Your task to perform on an android device: make emails show in primary in the gmail app Image 0: 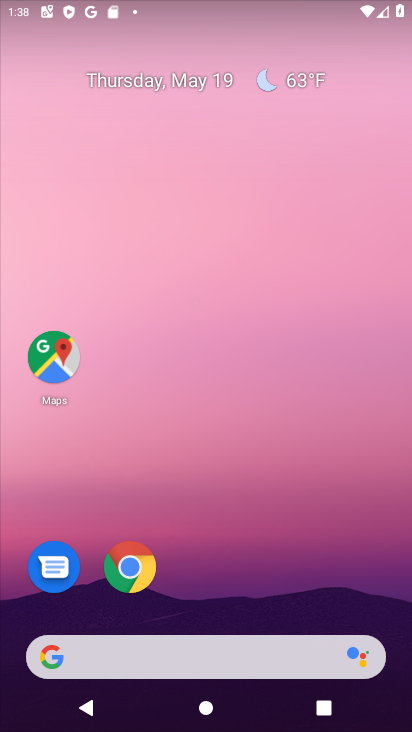
Step 0: drag from (275, 531) to (181, 132)
Your task to perform on an android device: make emails show in primary in the gmail app Image 1: 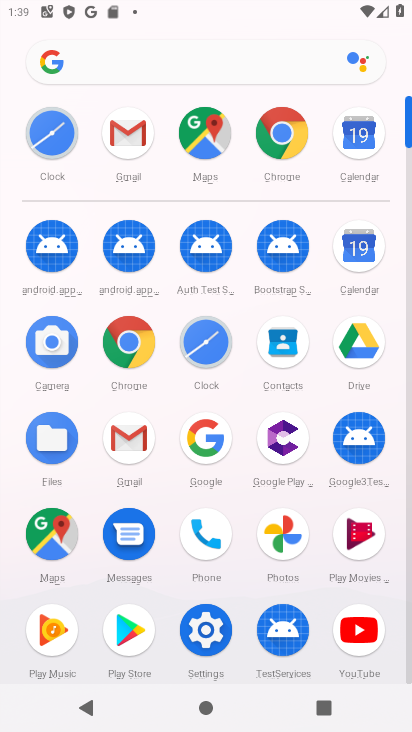
Step 1: click (138, 144)
Your task to perform on an android device: make emails show in primary in the gmail app Image 2: 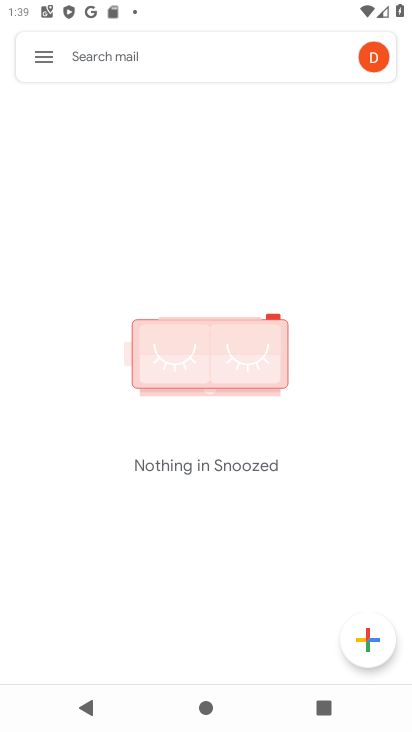
Step 2: click (48, 66)
Your task to perform on an android device: make emails show in primary in the gmail app Image 3: 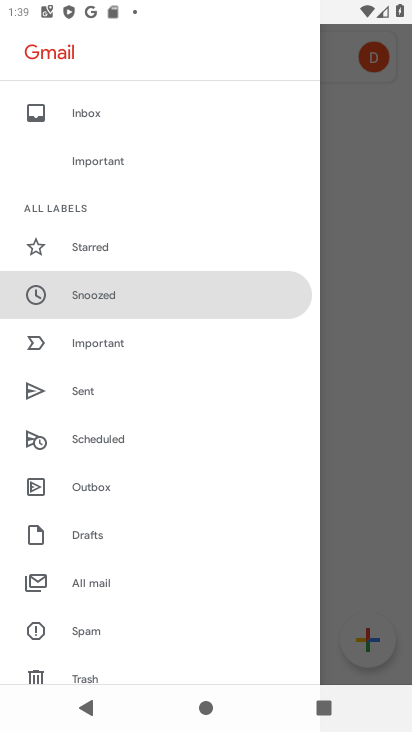
Step 3: drag from (193, 559) to (147, 152)
Your task to perform on an android device: make emails show in primary in the gmail app Image 4: 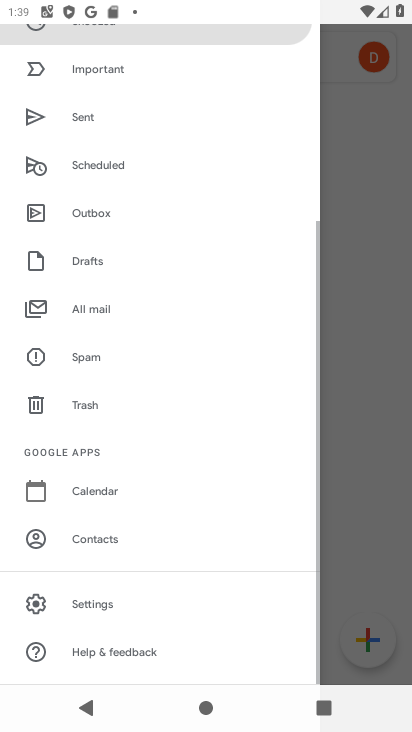
Step 4: click (78, 610)
Your task to perform on an android device: make emails show in primary in the gmail app Image 5: 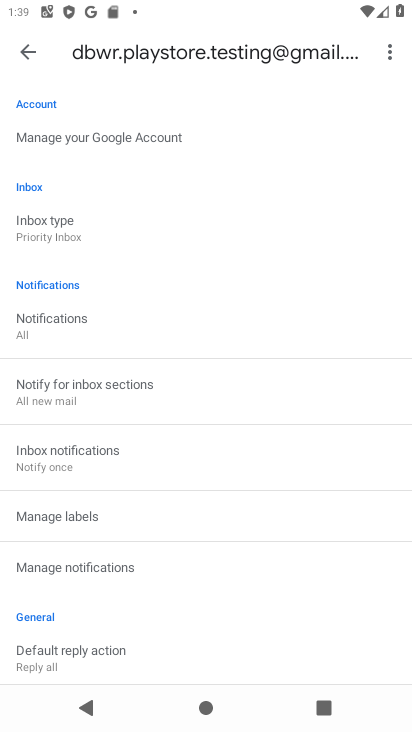
Step 5: click (34, 233)
Your task to perform on an android device: make emails show in primary in the gmail app Image 6: 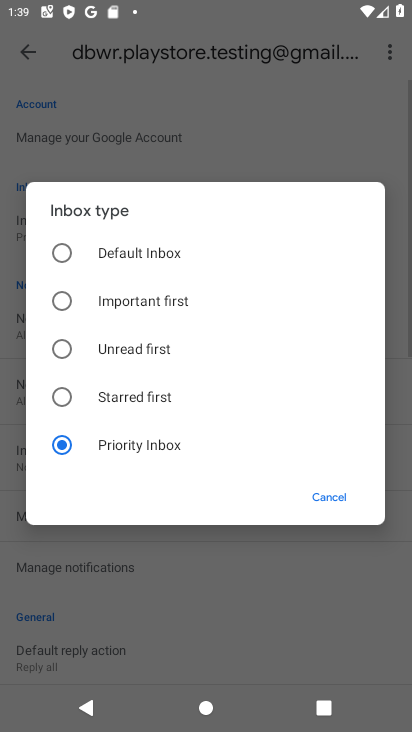
Step 6: click (110, 272)
Your task to perform on an android device: make emails show in primary in the gmail app Image 7: 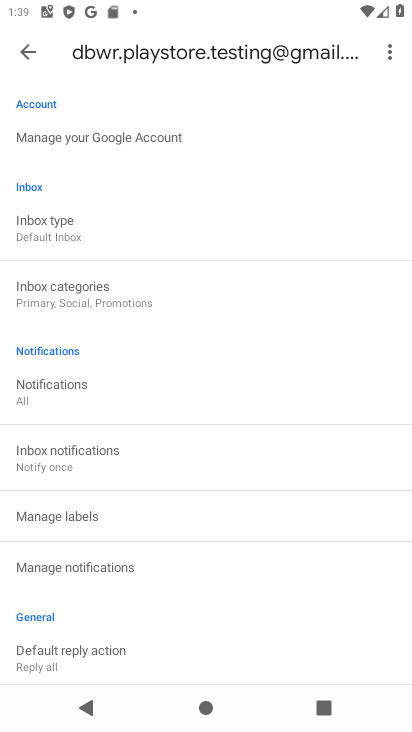
Step 7: task complete